Your task to perform on an android device: Open Reddit.com Image 0: 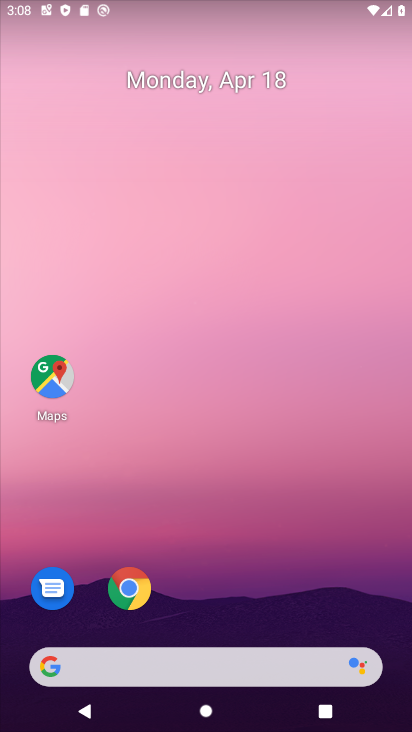
Step 0: click (142, 582)
Your task to perform on an android device: Open Reddit.com Image 1: 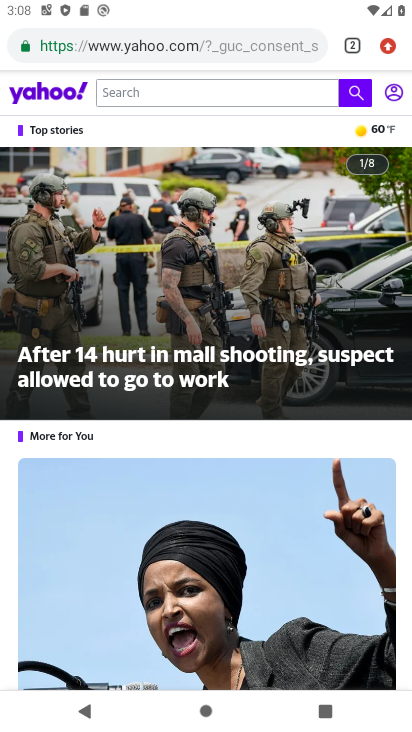
Step 1: click (155, 50)
Your task to perform on an android device: Open Reddit.com Image 2: 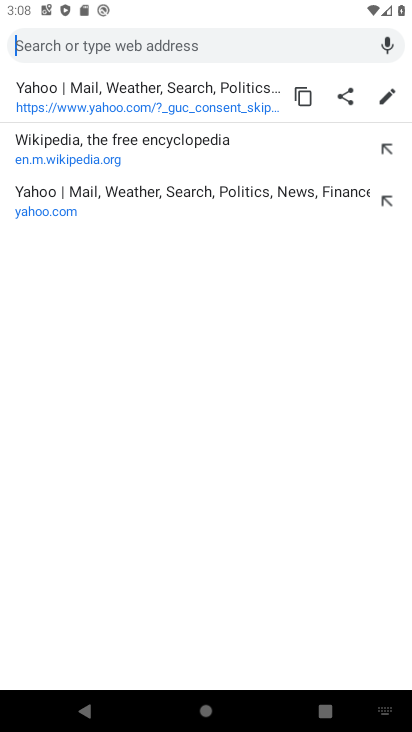
Step 2: type "reddit.com"
Your task to perform on an android device: Open Reddit.com Image 3: 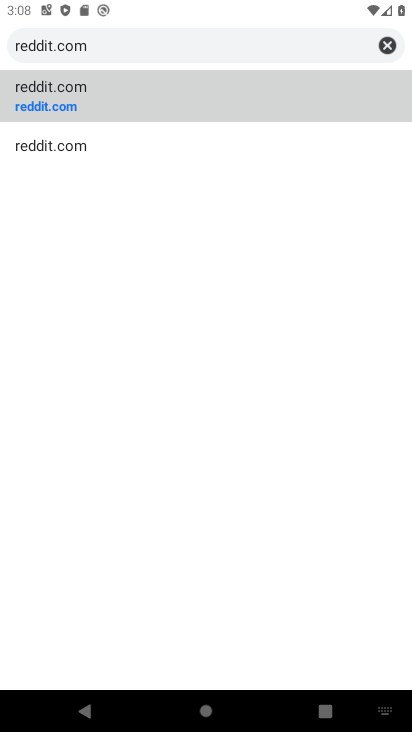
Step 3: click (227, 106)
Your task to perform on an android device: Open Reddit.com Image 4: 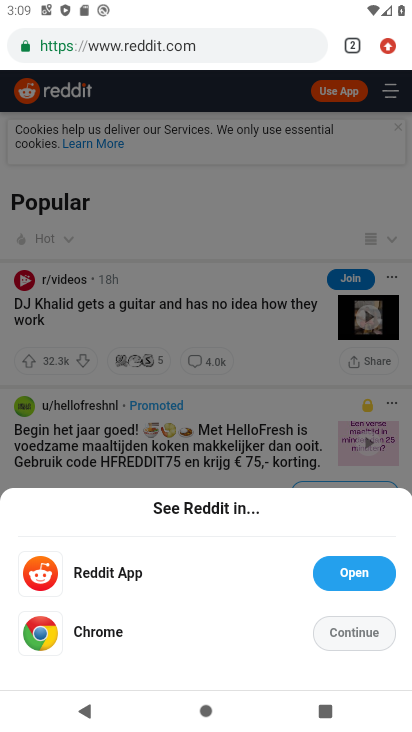
Step 4: task complete